Your task to perform on an android device: turn off wifi Image 0: 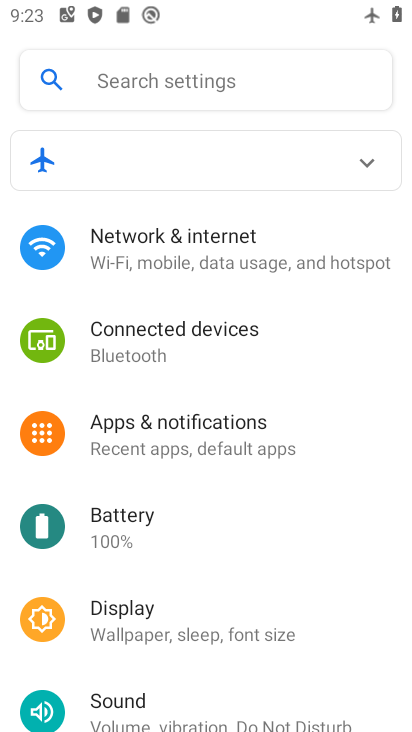
Step 0: click (204, 241)
Your task to perform on an android device: turn off wifi Image 1: 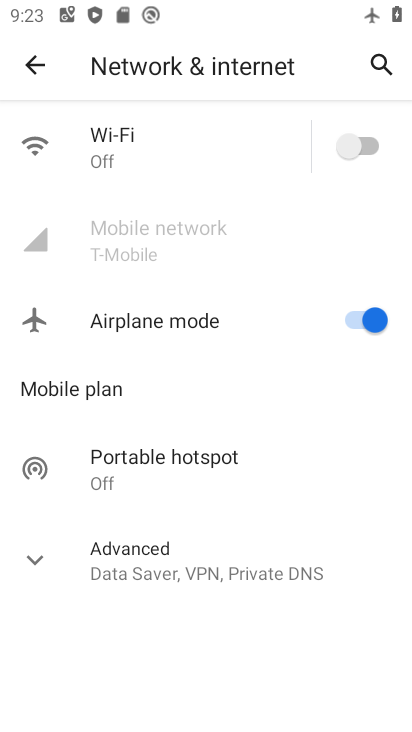
Step 1: task complete